Your task to perform on an android device: When is my next appointment? Image 0: 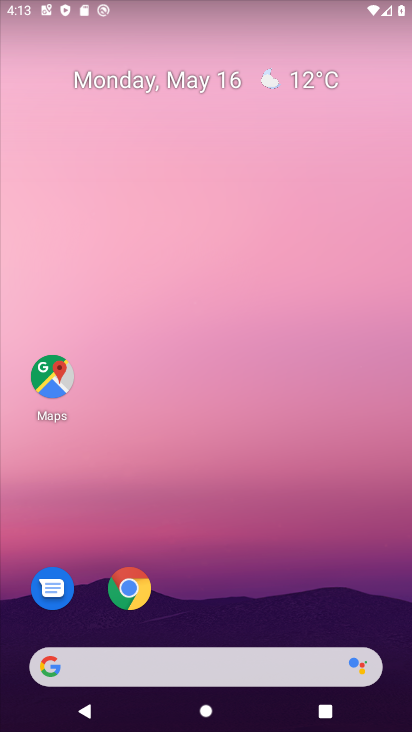
Step 0: click (209, 73)
Your task to perform on an android device: When is my next appointment? Image 1: 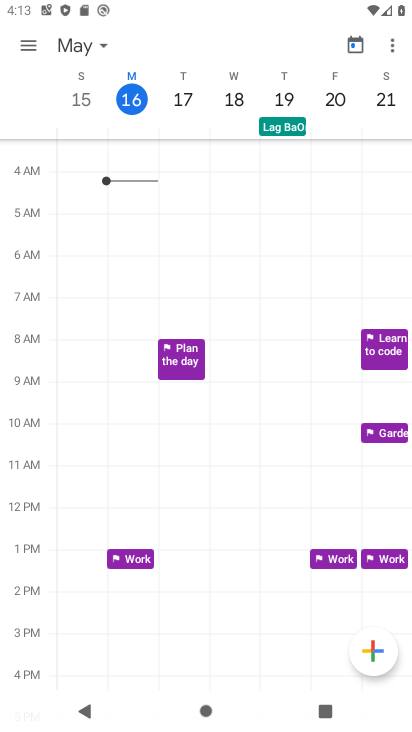
Step 1: click (29, 38)
Your task to perform on an android device: When is my next appointment? Image 2: 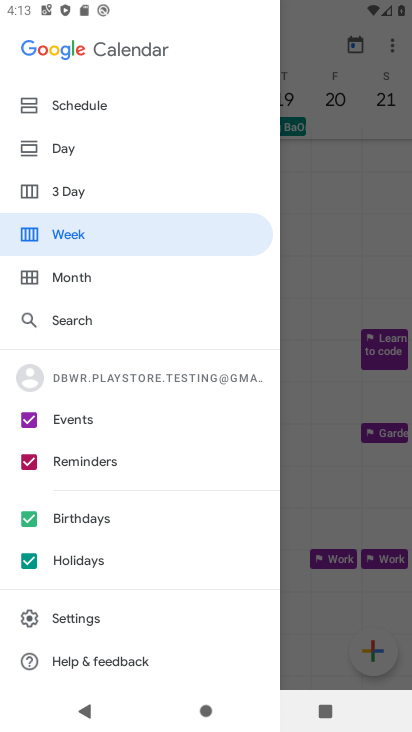
Step 2: click (92, 100)
Your task to perform on an android device: When is my next appointment? Image 3: 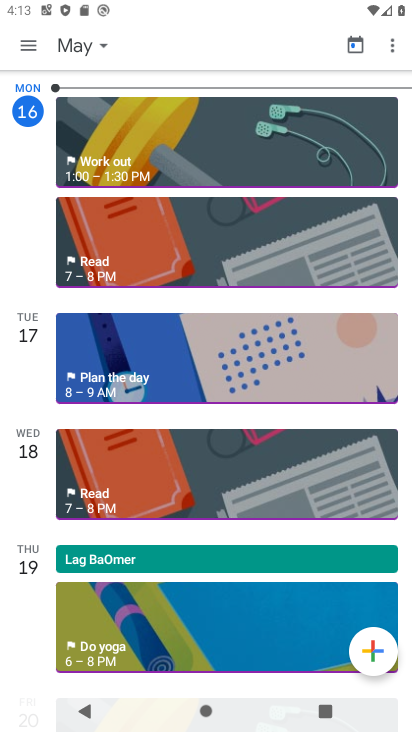
Step 3: click (29, 46)
Your task to perform on an android device: When is my next appointment? Image 4: 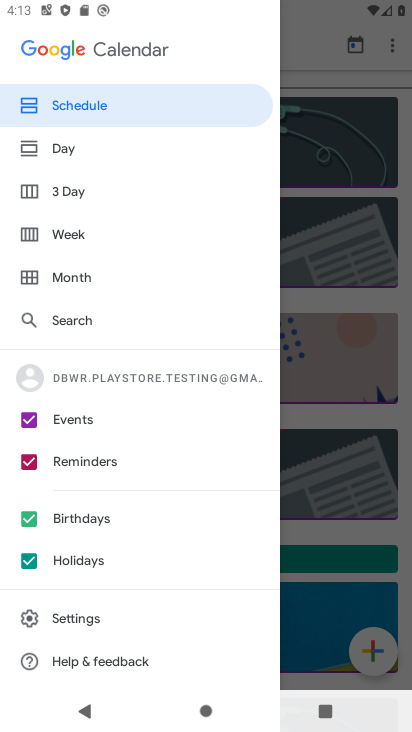
Step 4: click (341, 175)
Your task to perform on an android device: When is my next appointment? Image 5: 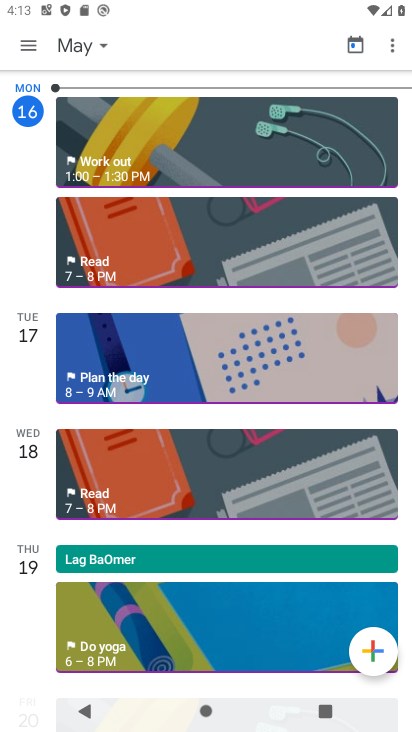
Step 5: click (260, 257)
Your task to perform on an android device: When is my next appointment? Image 6: 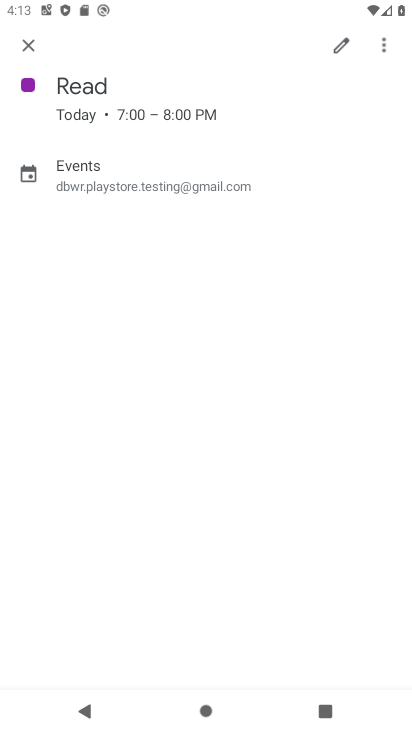
Step 6: task complete